Your task to perform on an android device: turn off notifications settings in the gmail app Image 0: 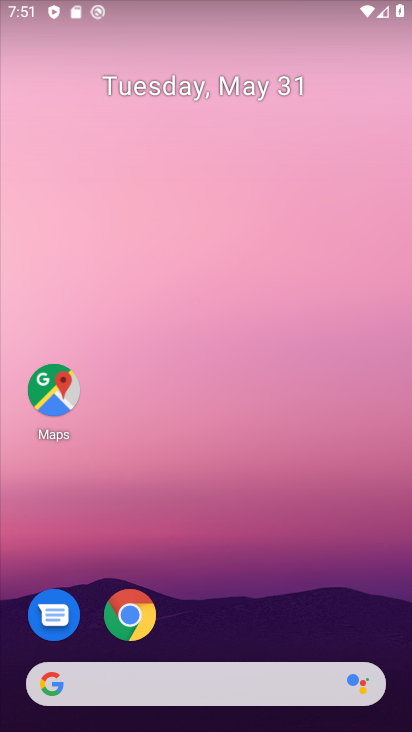
Step 0: drag from (284, 605) to (293, 2)
Your task to perform on an android device: turn off notifications settings in the gmail app Image 1: 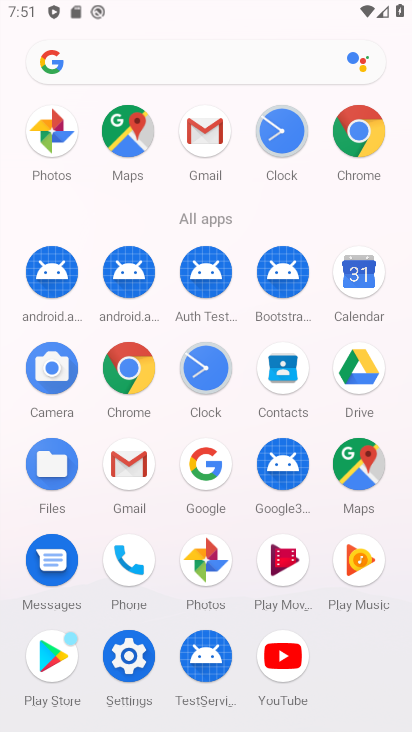
Step 1: click (128, 460)
Your task to perform on an android device: turn off notifications settings in the gmail app Image 2: 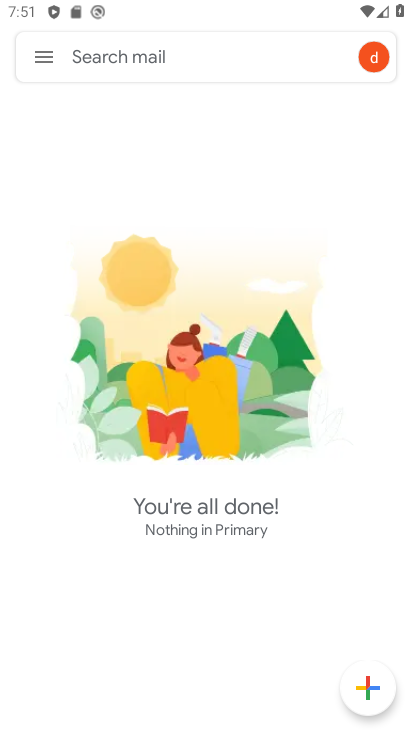
Step 2: click (55, 45)
Your task to perform on an android device: turn off notifications settings in the gmail app Image 3: 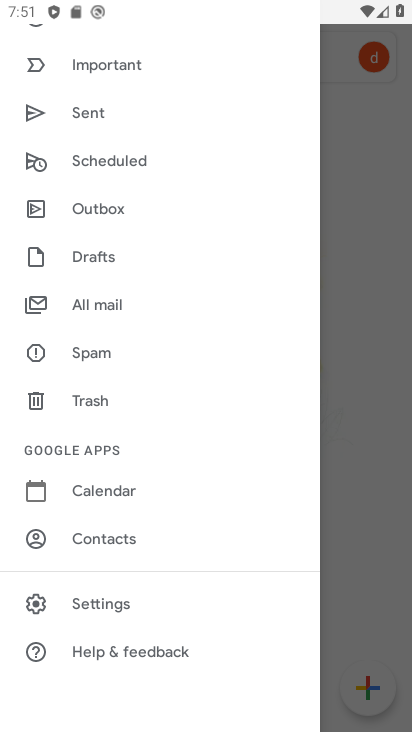
Step 3: click (126, 591)
Your task to perform on an android device: turn off notifications settings in the gmail app Image 4: 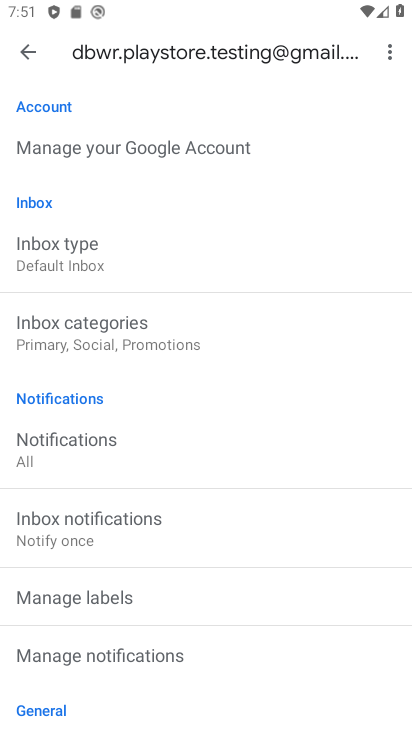
Step 4: click (61, 646)
Your task to perform on an android device: turn off notifications settings in the gmail app Image 5: 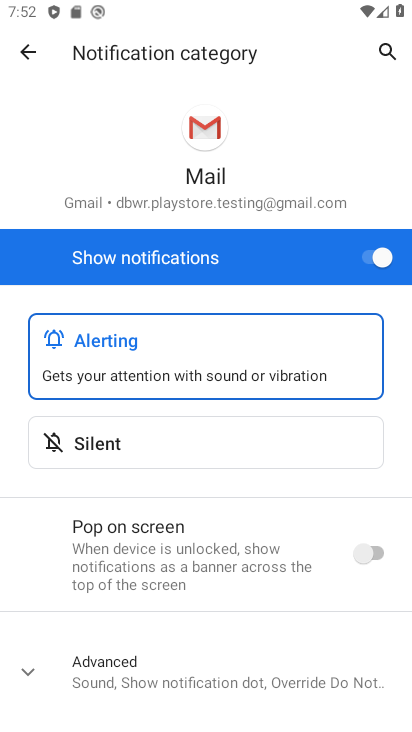
Step 5: click (393, 262)
Your task to perform on an android device: turn off notifications settings in the gmail app Image 6: 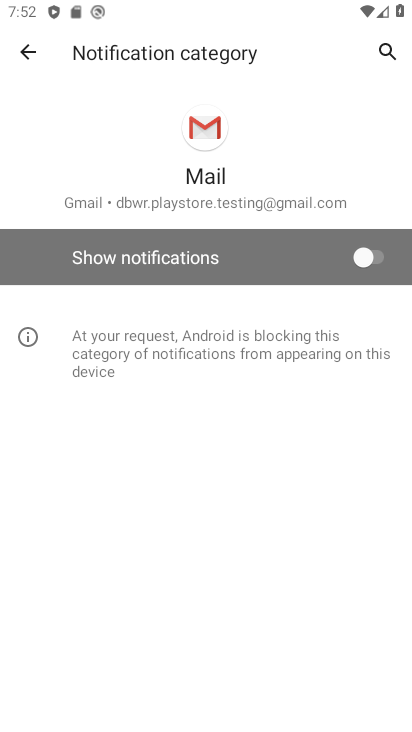
Step 6: task complete